Your task to perform on an android device: turn on javascript in the chrome app Image 0: 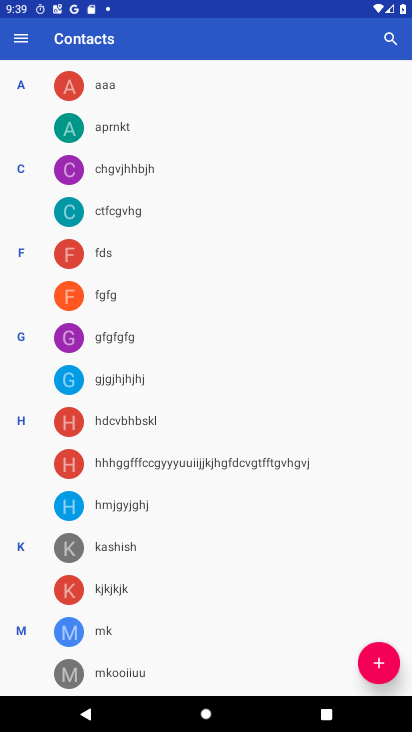
Step 0: press home button
Your task to perform on an android device: turn on javascript in the chrome app Image 1: 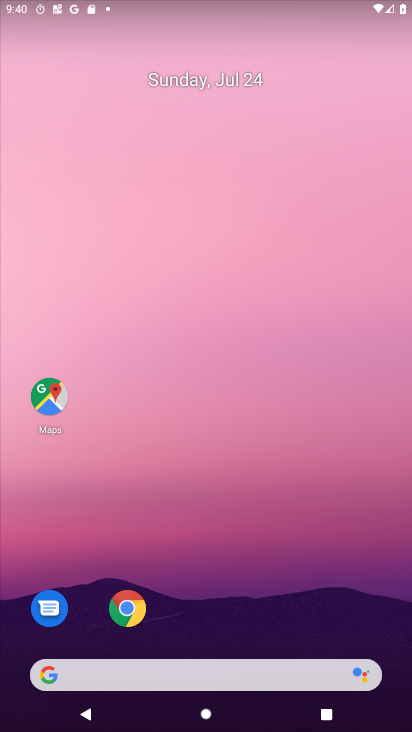
Step 1: click (136, 594)
Your task to perform on an android device: turn on javascript in the chrome app Image 2: 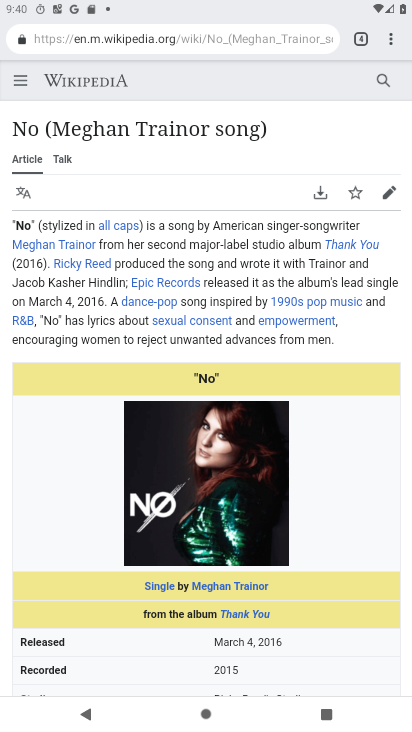
Step 2: click (395, 42)
Your task to perform on an android device: turn on javascript in the chrome app Image 3: 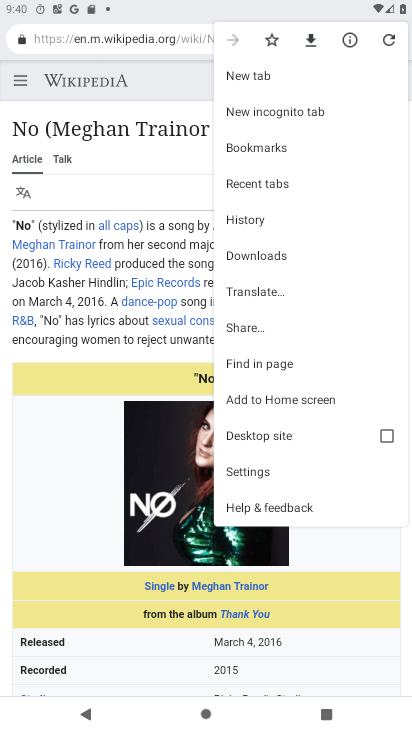
Step 3: click (262, 467)
Your task to perform on an android device: turn on javascript in the chrome app Image 4: 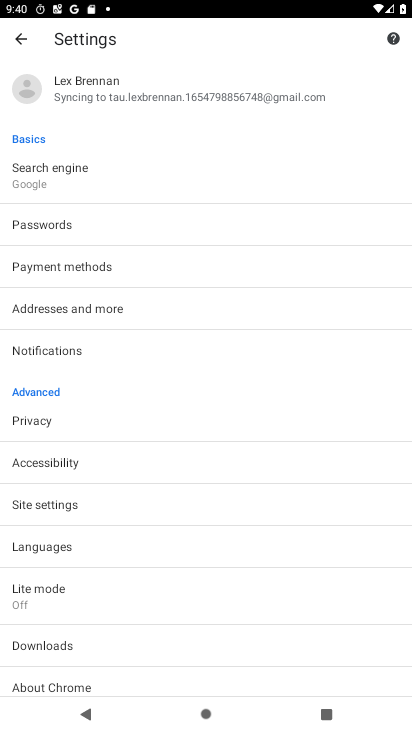
Step 4: click (143, 507)
Your task to perform on an android device: turn on javascript in the chrome app Image 5: 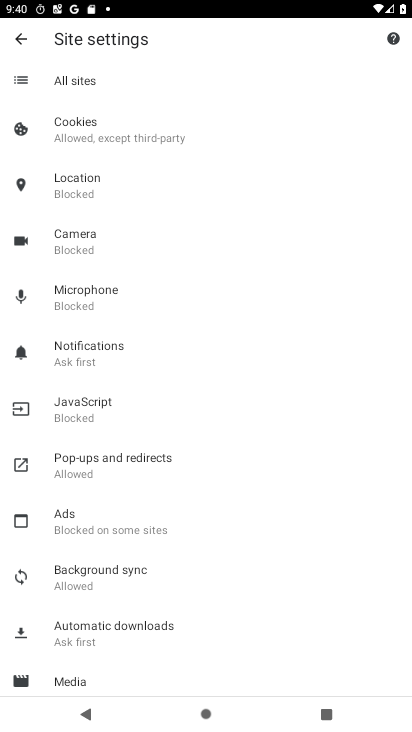
Step 5: click (114, 421)
Your task to perform on an android device: turn on javascript in the chrome app Image 6: 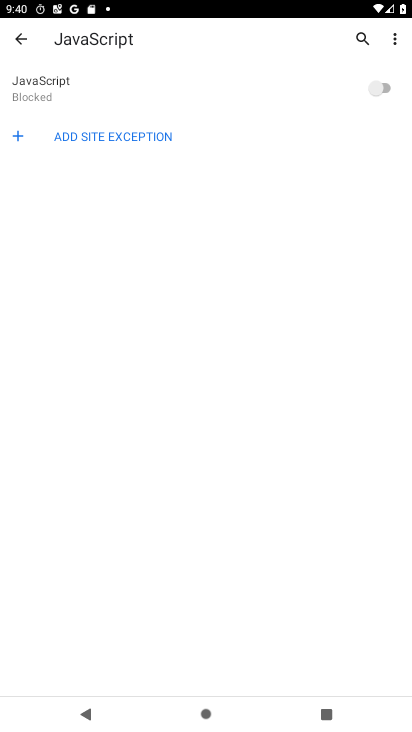
Step 6: click (392, 85)
Your task to perform on an android device: turn on javascript in the chrome app Image 7: 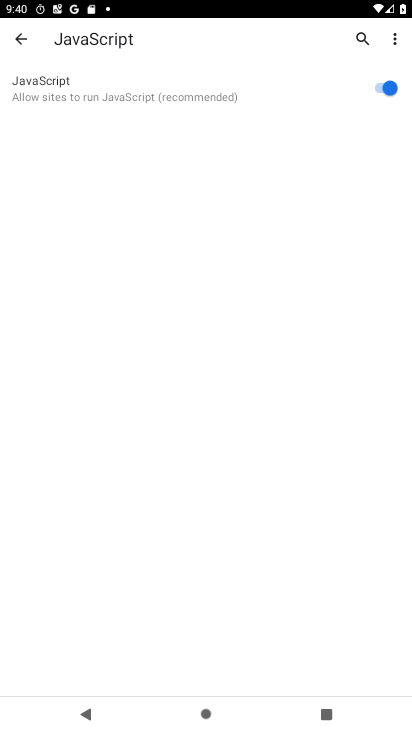
Step 7: task complete